Your task to perform on an android device: Open settings on Google Maps Image 0: 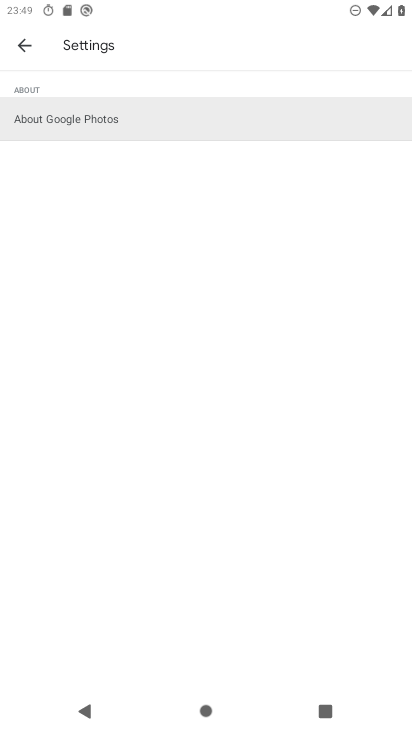
Step 0: press home button
Your task to perform on an android device: Open settings on Google Maps Image 1: 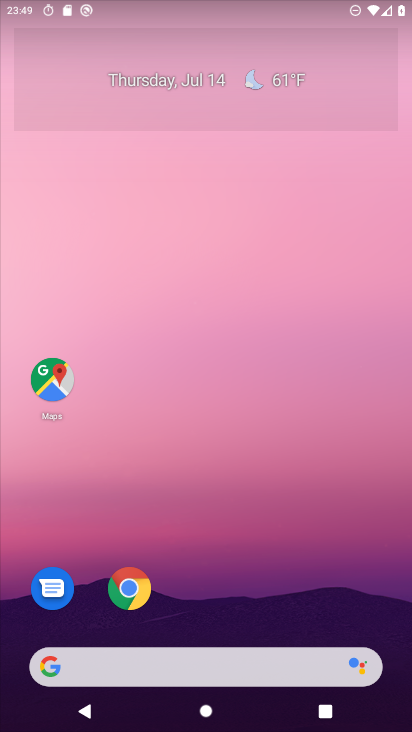
Step 1: click (50, 387)
Your task to perform on an android device: Open settings on Google Maps Image 2: 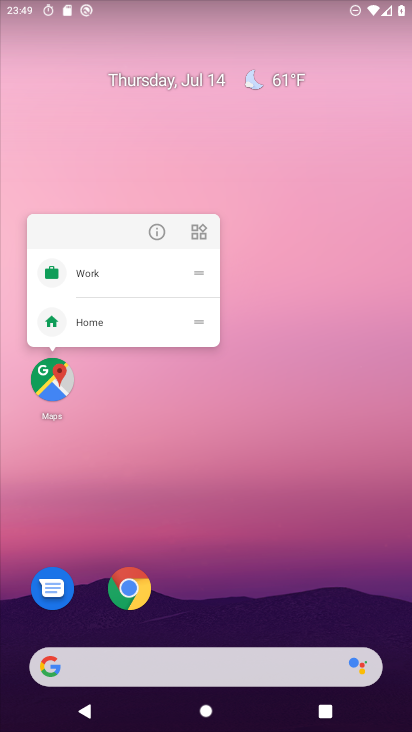
Step 2: click (50, 387)
Your task to perform on an android device: Open settings on Google Maps Image 3: 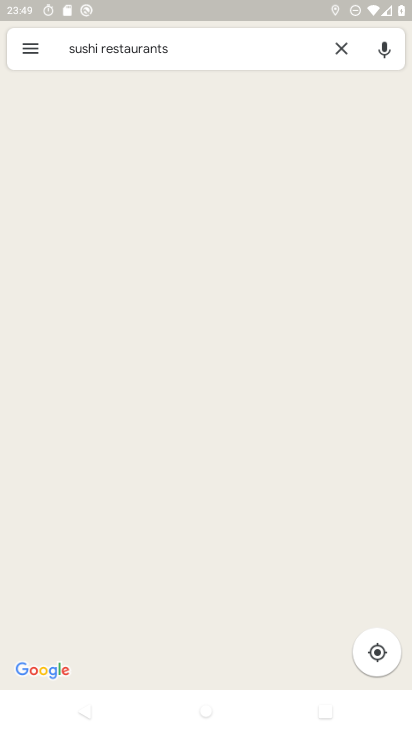
Step 3: click (336, 44)
Your task to perform on an android device: Open settings on Google Maps Image 4: 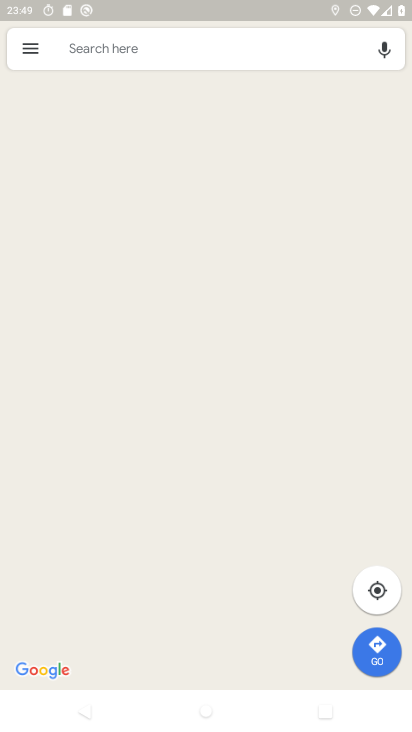
Step 4: click (25, 48)
Your task to perform on an android device: Open settings on Google Maps Image 5: 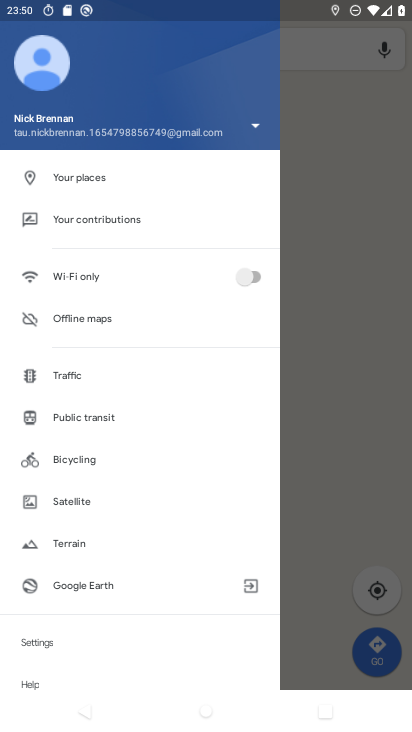
Step 5: click (44, 642)
Your task to perform on an android device: Open settings on Google Maps Image 6: 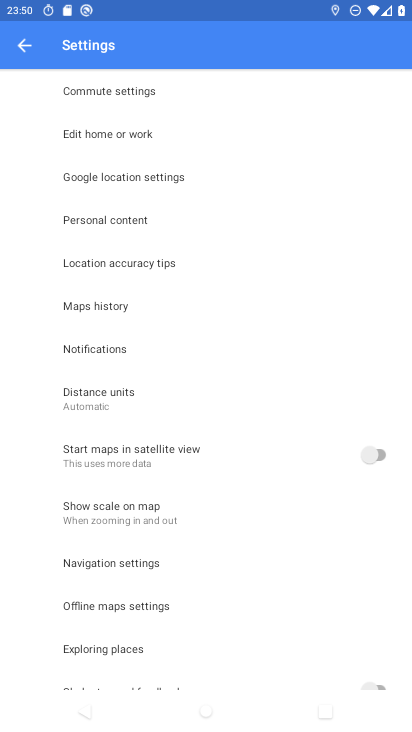
Step 6: task complete